Your task to perform on an android device: check battery use Image 0: 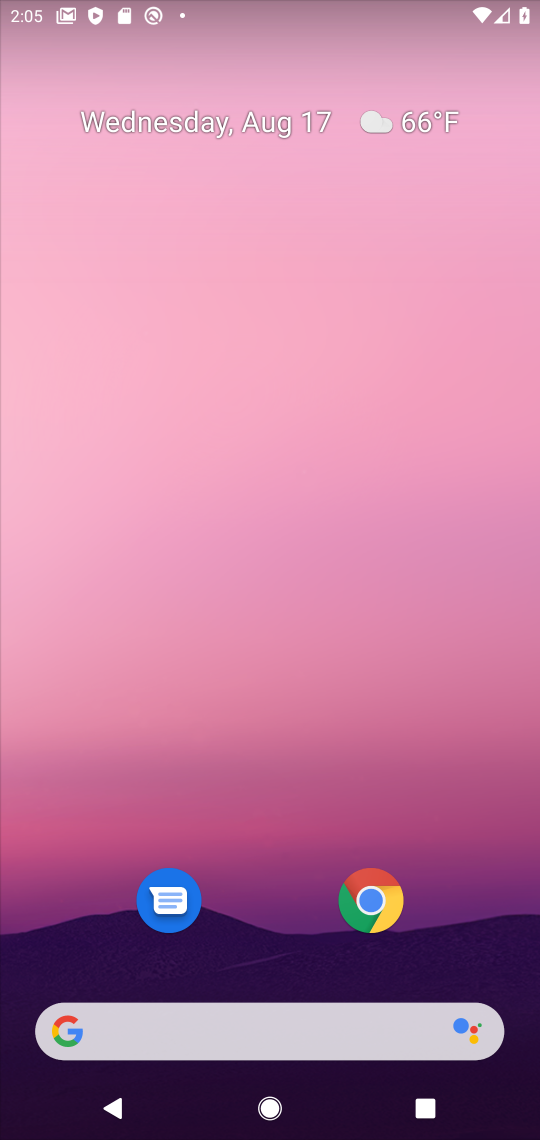
Step 0: drag from (268, 929) to (321, 381)
Your task to perform on an android device: check battery use Image 1: 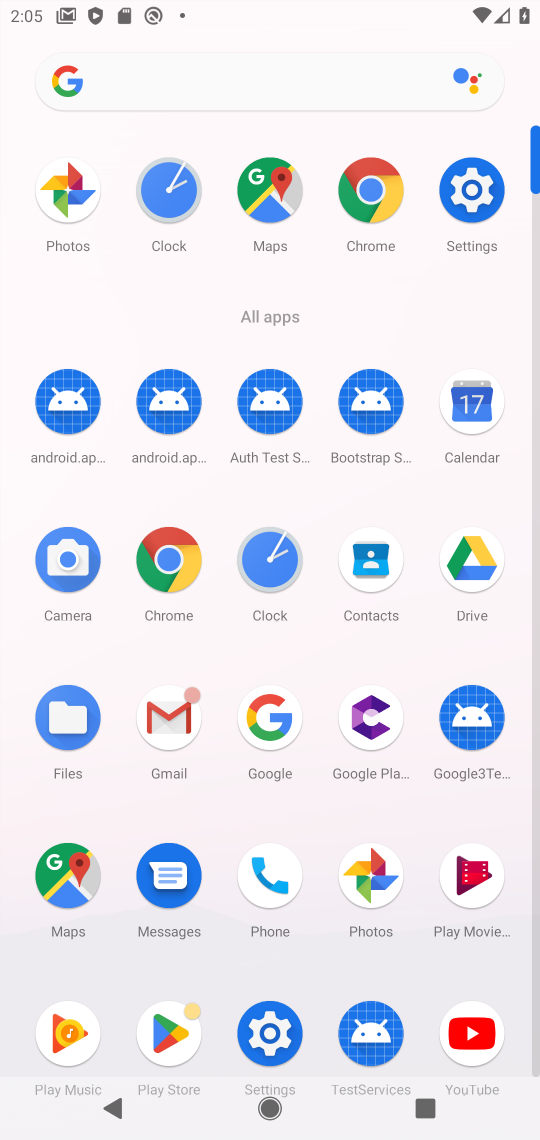
Step 1: click (474, 203)
Your task to perform on an android device: check battery use Image 2: 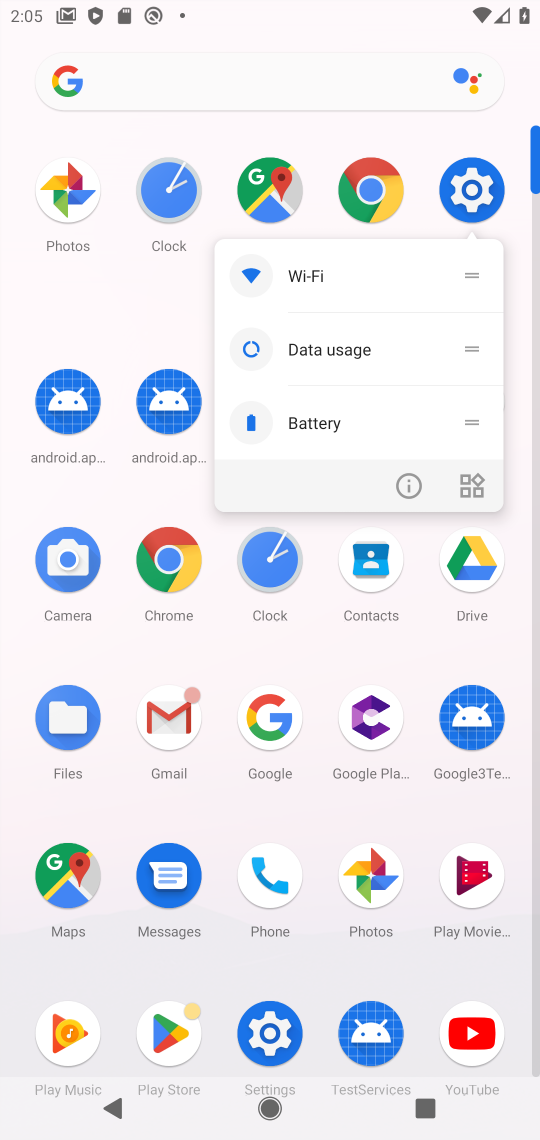
Step 2: click (468, 181)
Your task to perform on an android device: check battery use Image 3: 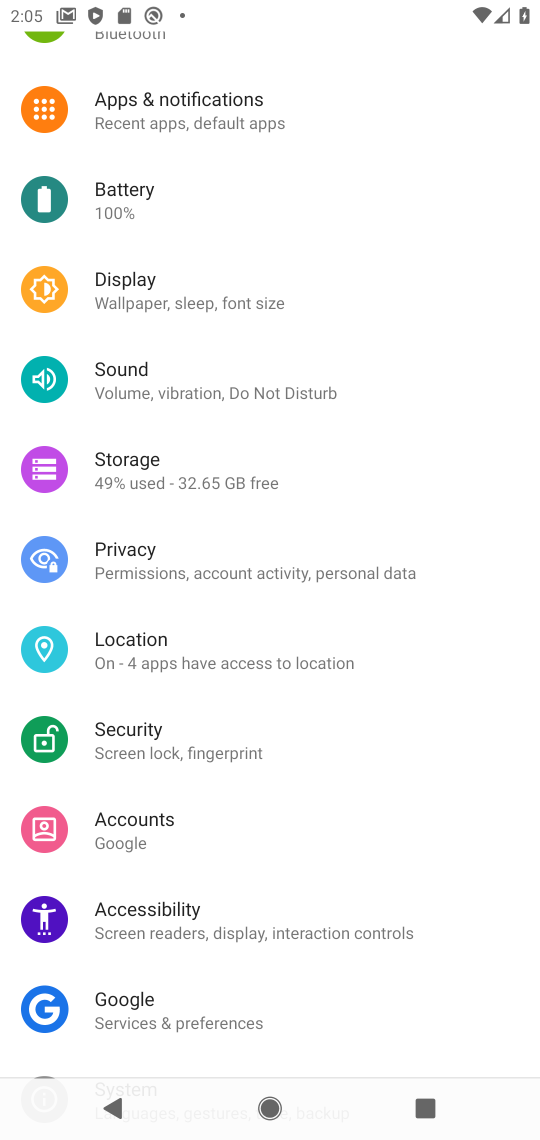
Step 3: click (121, 198)
Your task to perform on an android device: check battery use Image 4: 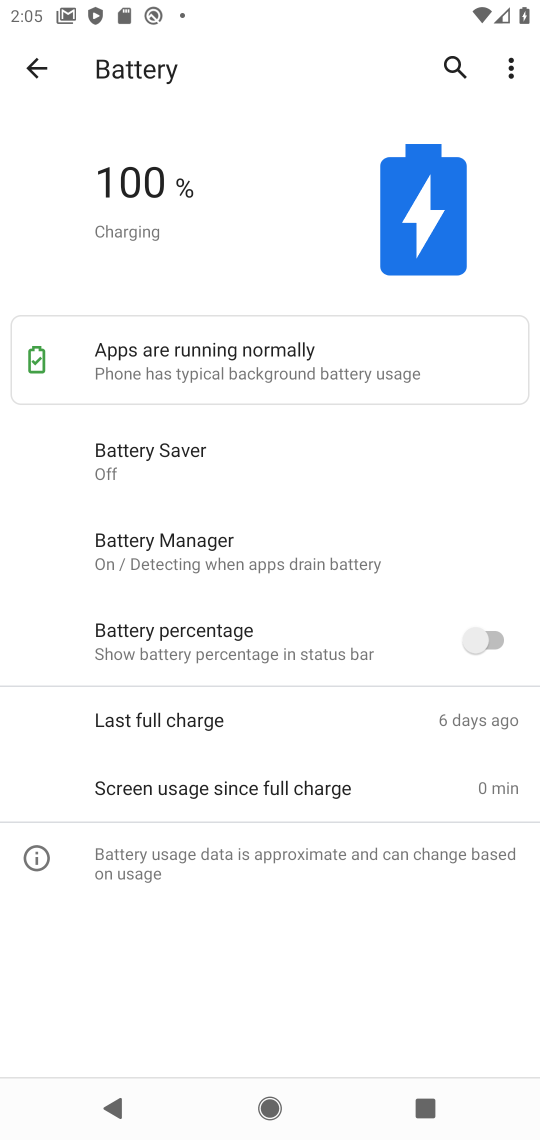
Step 4: drag from (302, 945) to (311, 81)
Your task to perform on an android device: check battery use Image 5: 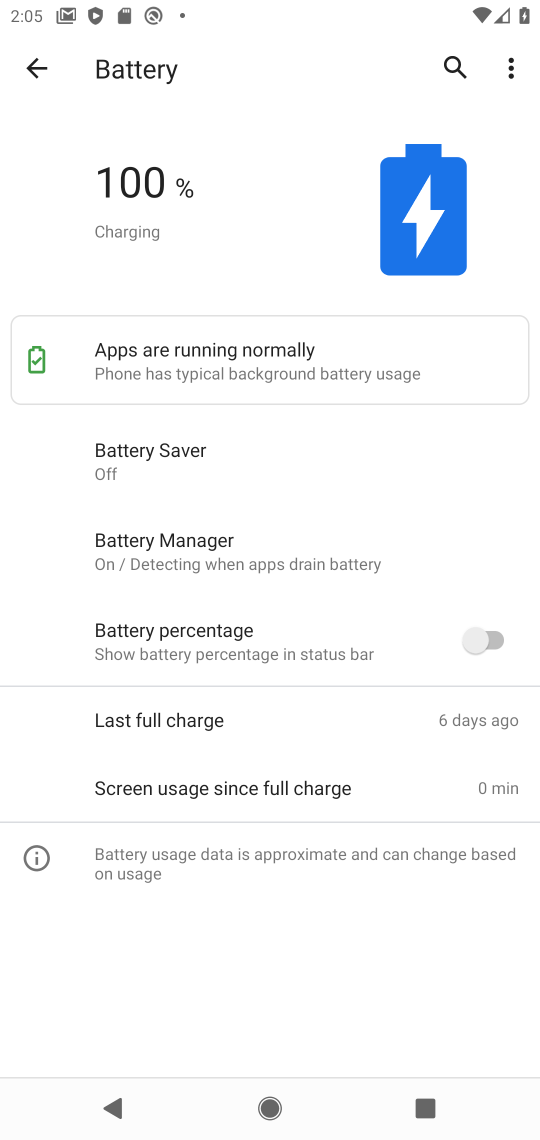
Step 5: click (511, 60)
Your task to perform on an android device: check battery use Image 6: 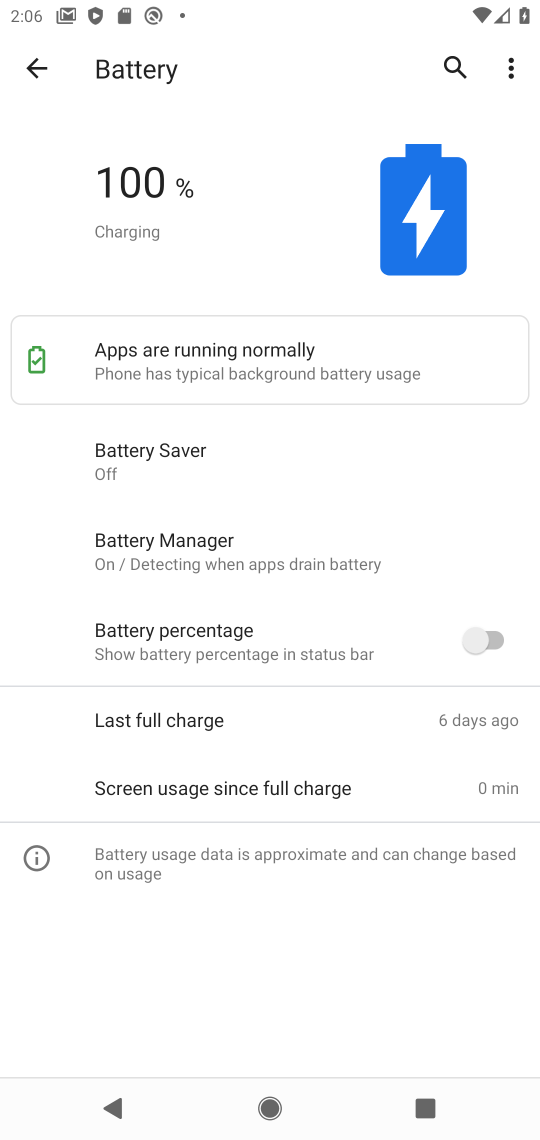
Step 6: click (510, 66)
Your task to perform on an android device: check battery use Image 7: 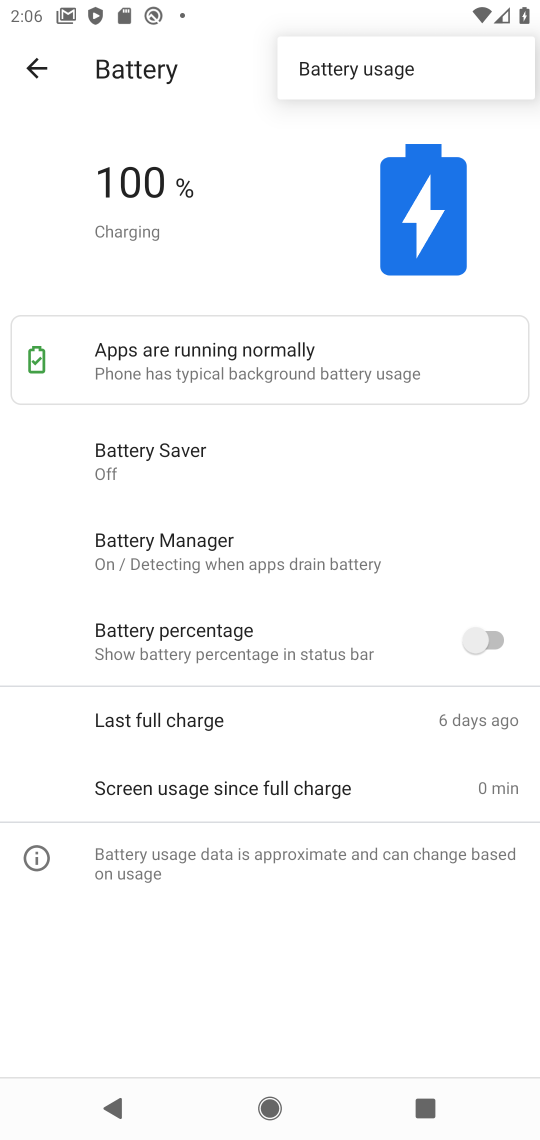
Step 7: click (409, 63)
Your task to perform on an android device: check battery use Image 8: 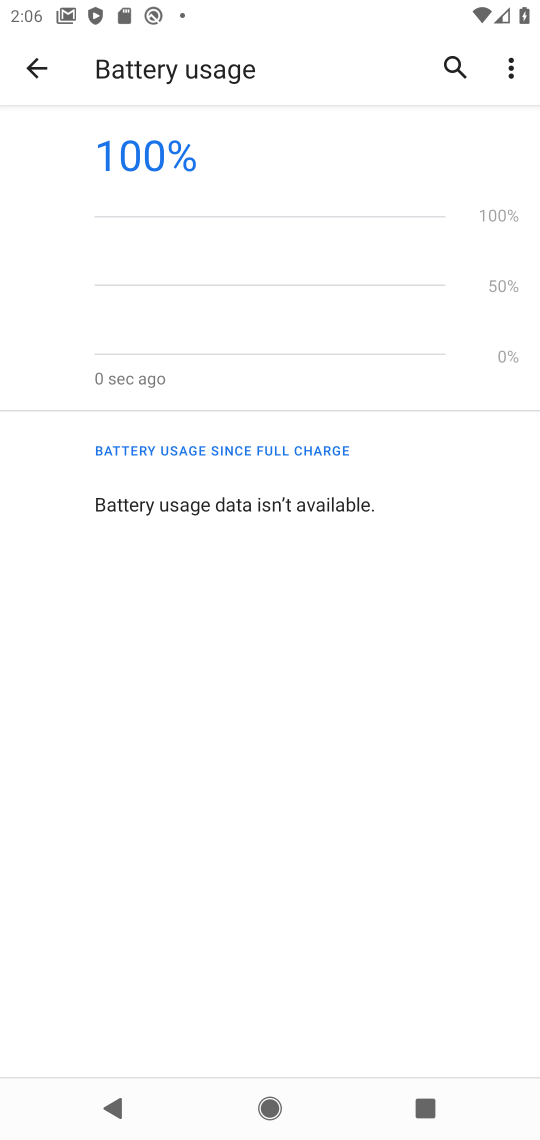
Step 8: task complete